Your task to perform on an android device: choose inbox layout in the gmail app Image 0: 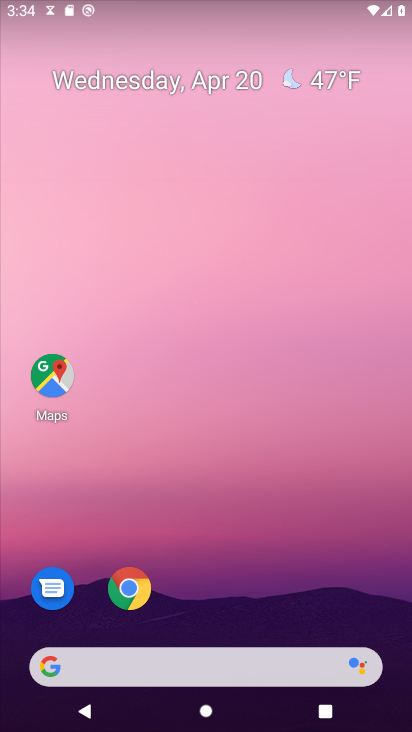
Step 0: drag from (220, 614) to (228, 214)
Your task to perform on an android device: choose inbox layout in the gmail app Image 1: 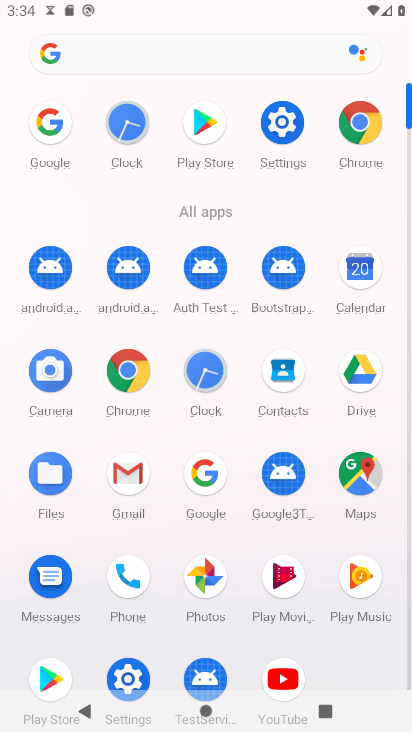
Step 1: click (132, 475)
Your task to perform on an android device: choose inbox layout in the gmail app Image 2: 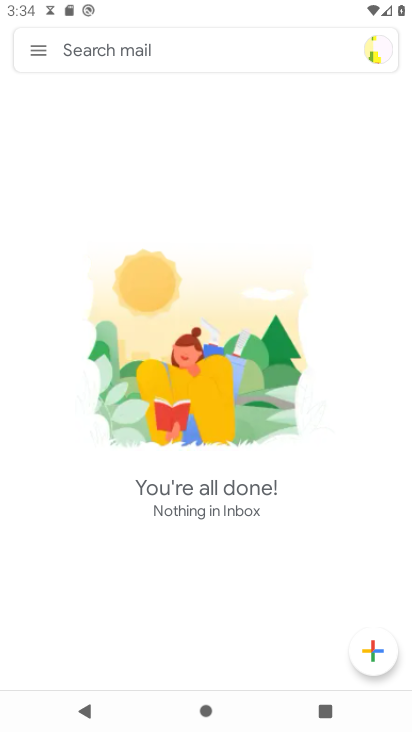
Step 2: click (29, 46)
Your task to perform on an android device: choose inbox layout in the gmail app Image 3: 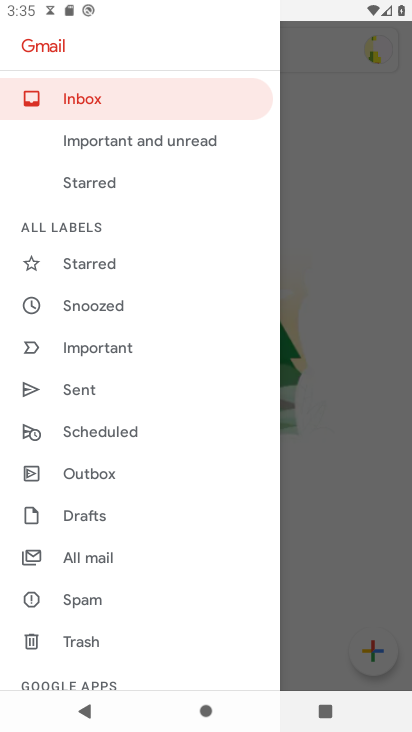
Step 3: drag from (45, 642) to (101, 405)
Your task to perform on an android device: choose inbox layout in the gmail app Image 4: 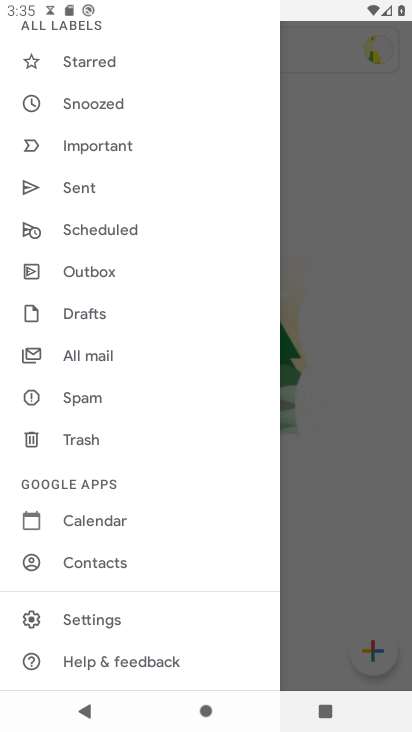
Step 4: click (44, 621)
Your task to perform on an android device: choose inbox layout in the gmail app Image 5: 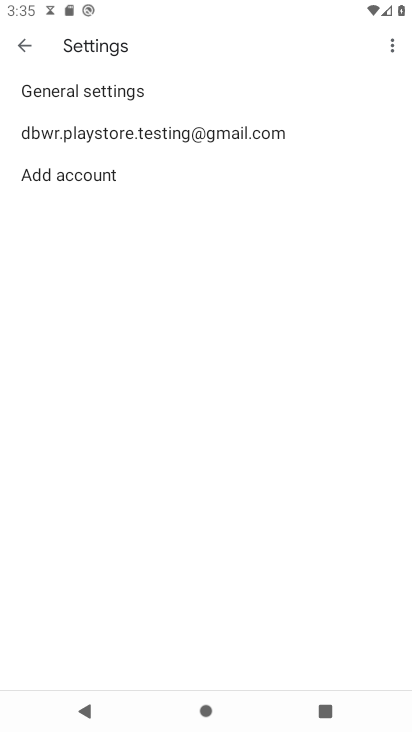
Step 5: click (65, 134)
Your task to perform on an android device: choose inbox layout in the gmail app Image 6: 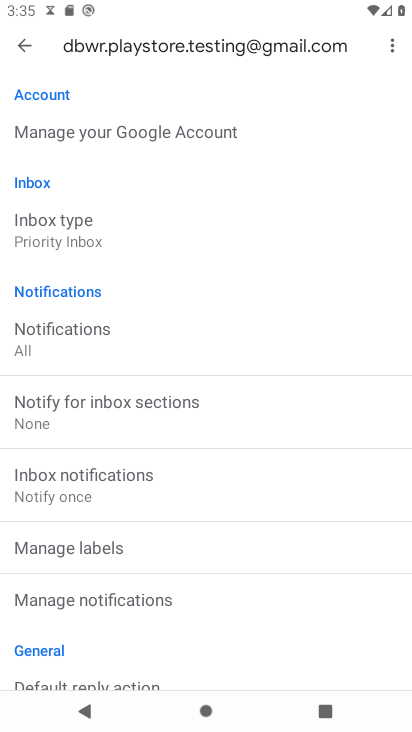
Step 6: click (75, 237)
Your task to perform on an android device: choose inbox layout in the gmail app Image 7: 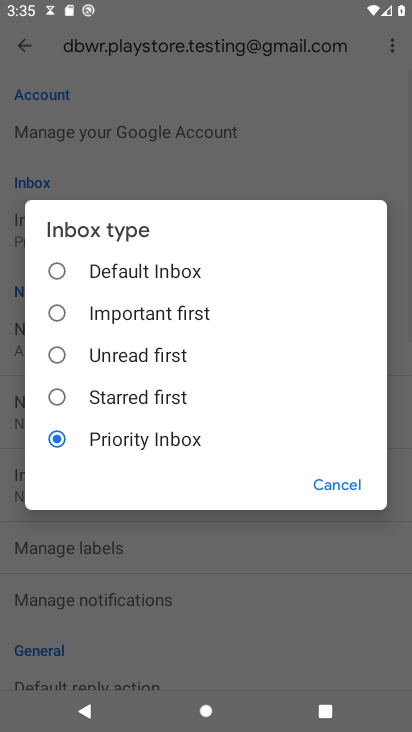
Step 7: click (109, 260)
Your task to perform on an android device: choose inbox layout in the gmail app Image 8: 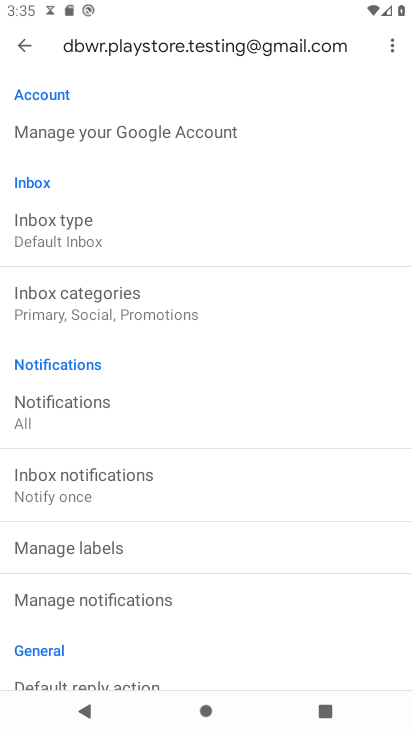
Step 8: task complete